Your task to perform on an android device: Open the settings Image 0: 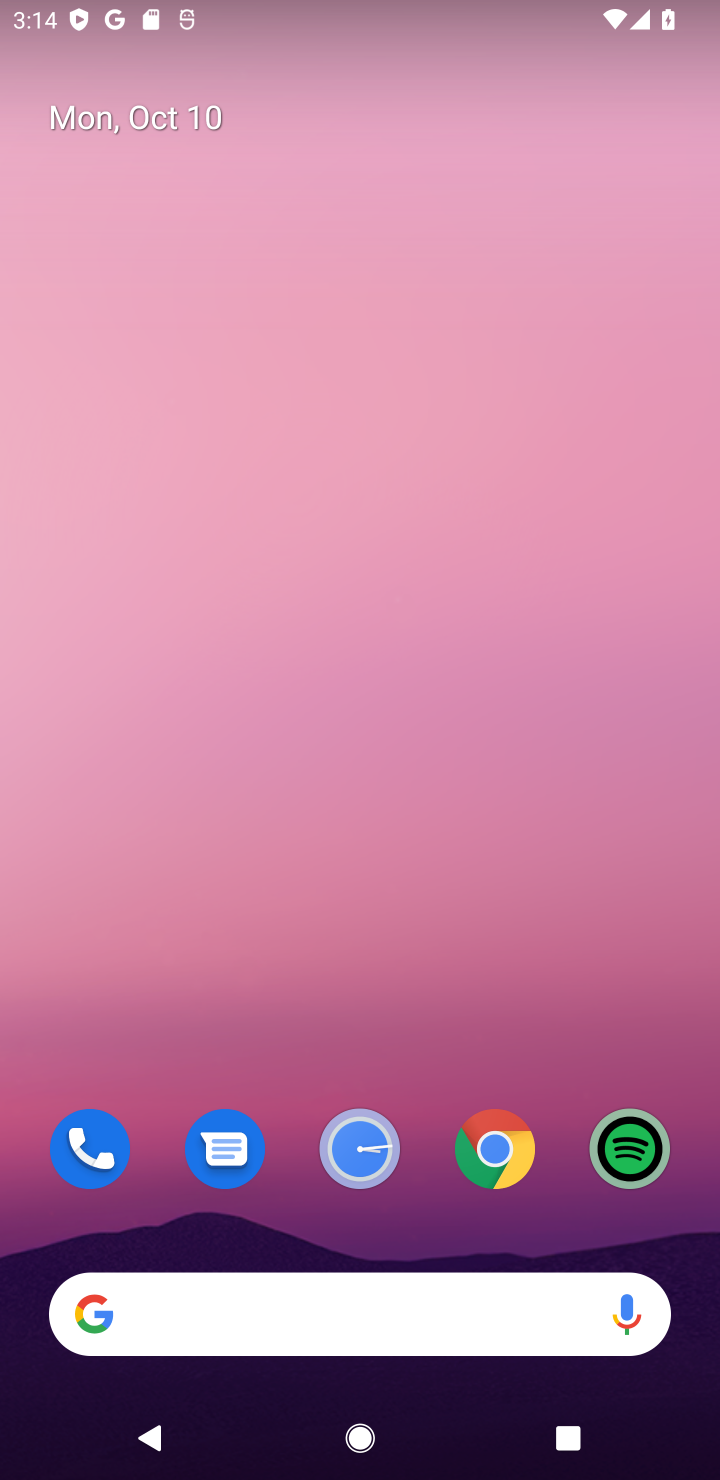
Step 0: drag from (300, 1229) to (307, 96)
Your task to perform on an android device: Open the settings Image 1: 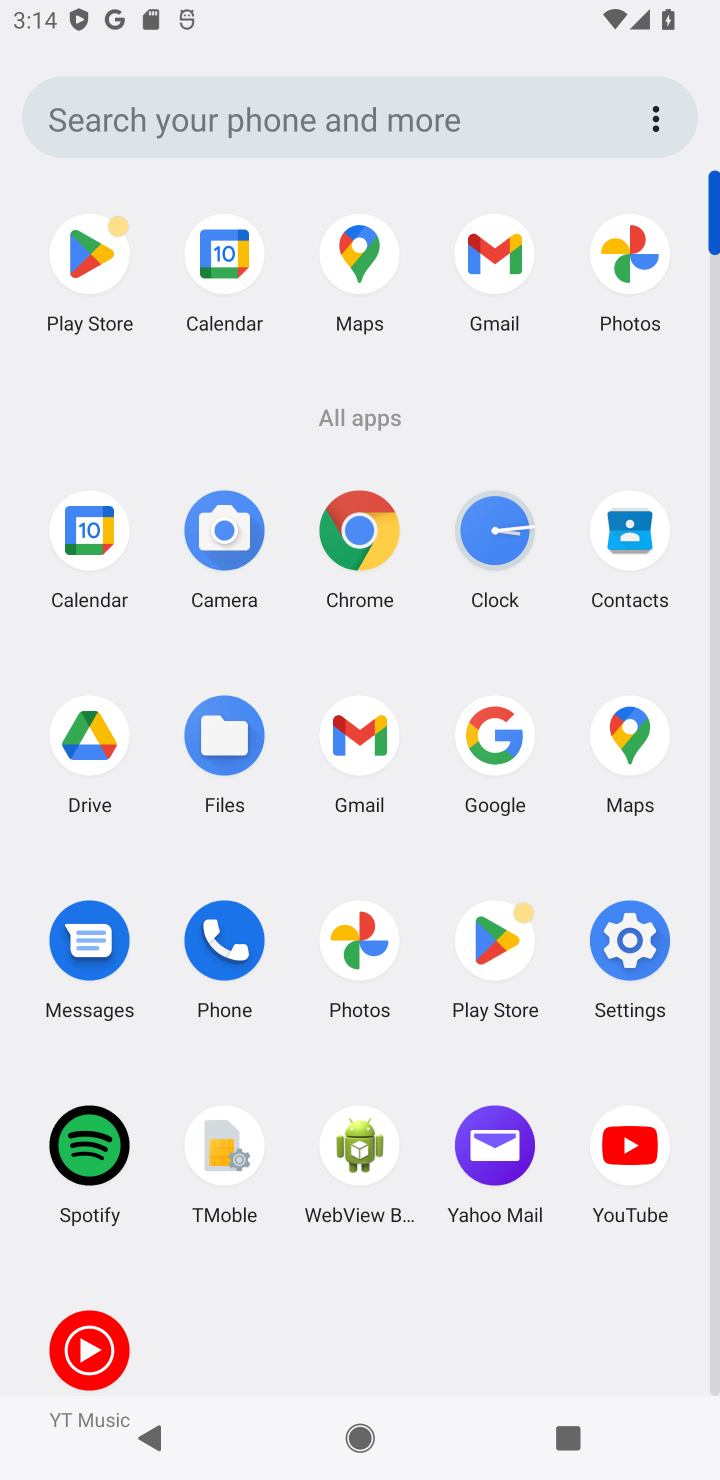
Step 1: click (601, 967)
Your task to perform on an android device: Open the settings Image 2: 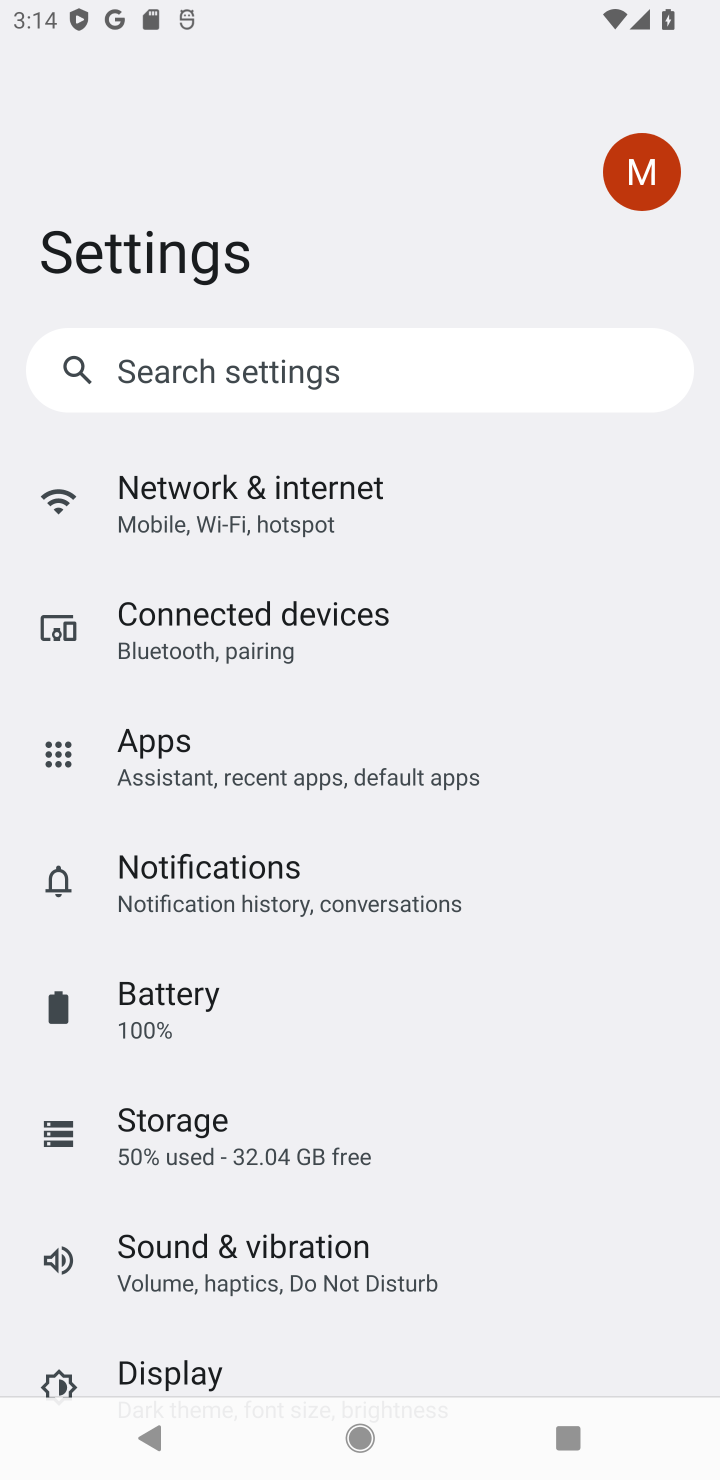
Step 2: task complete